Your task to perform on an android device: snooze an email in the gmail app Image 0: 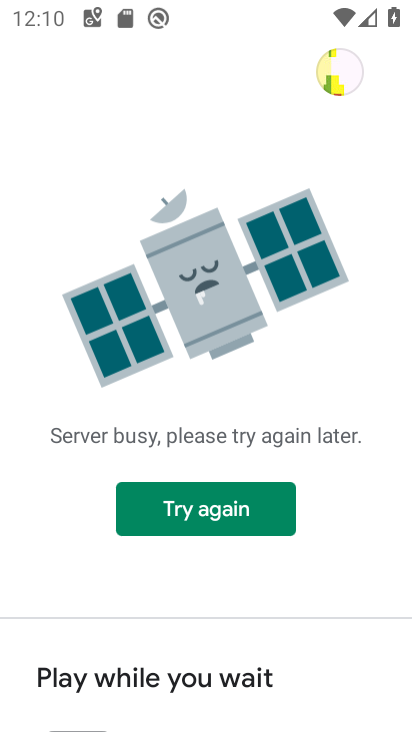
Step 0: press home button
Your task to perform on an android device: snooze an email in the gmail app Image 1: 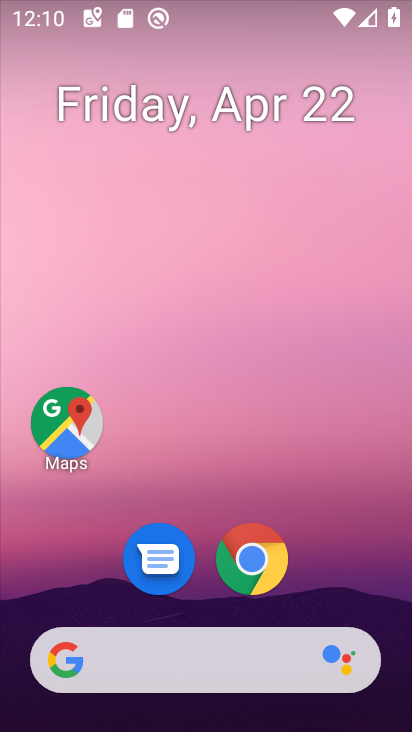
Step 1: click (258, 559)
Your task to perform on an android device: snooze an email in the gmail app Image 2: 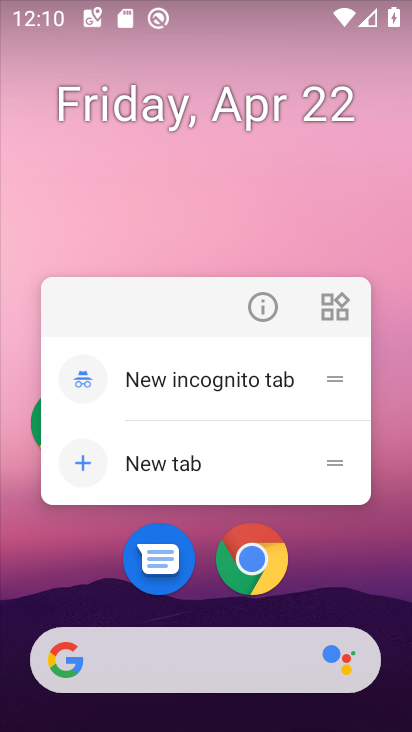
Step 2: click (243, 583)
Your task to perform on an android device: snooze an email in the gmail app Image 3: 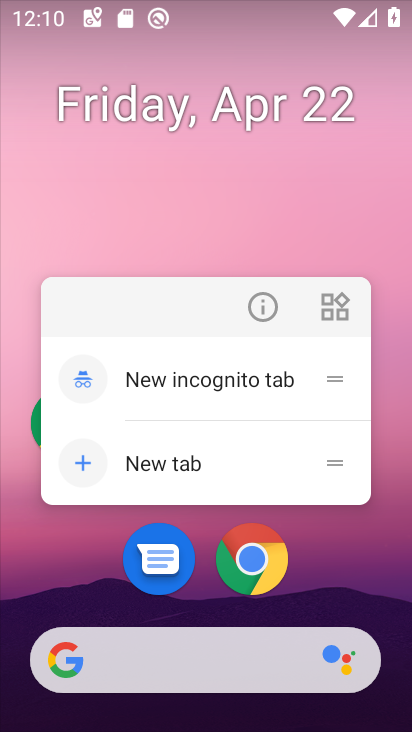
Step 3: click (251, 571)
Your task to perform on an android device: snooze an email in the gmail app Image 4: 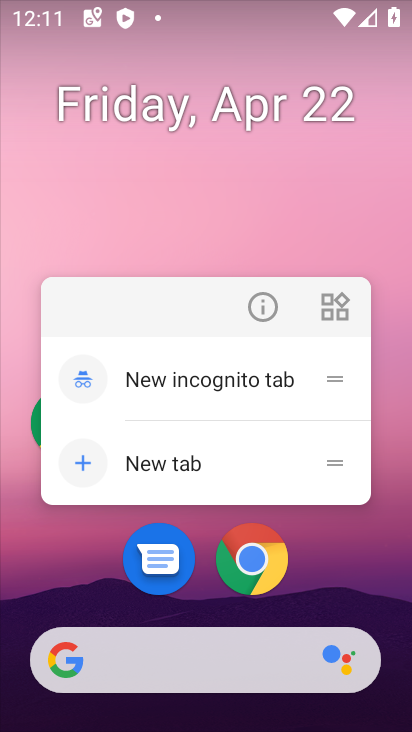
Step 4: click (246, 569)
Your task to perform on an android device: snooze an email in the gmail app Image 5: 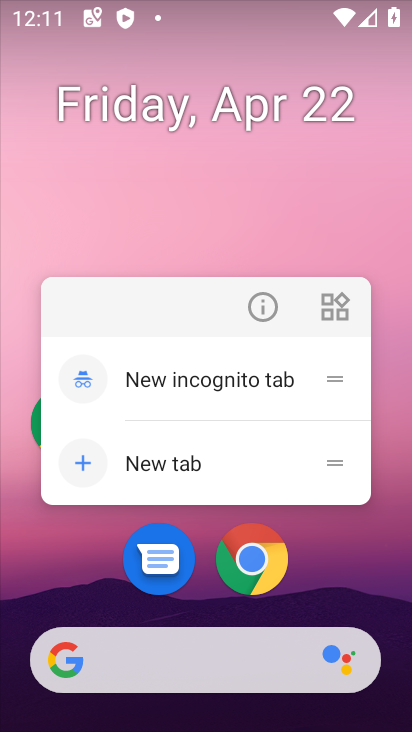
Step 5: click (248, 555)
Your task to perform on an android device: snooze an email in the gmail app Image 6: 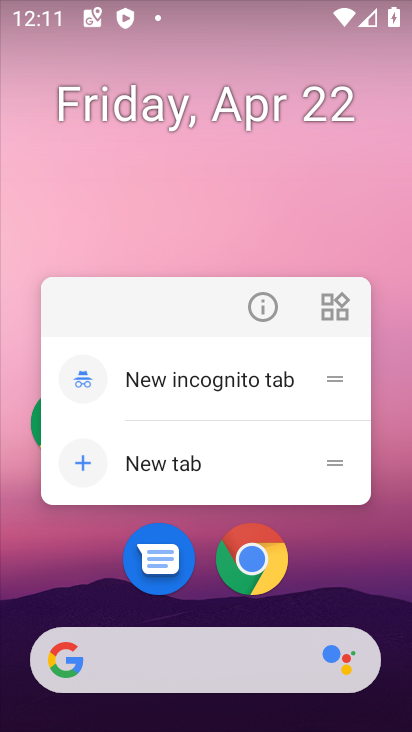
Step 6: click (248, 555)
Your task to perform on an android device: snooze an email in the gmail app Image 7: 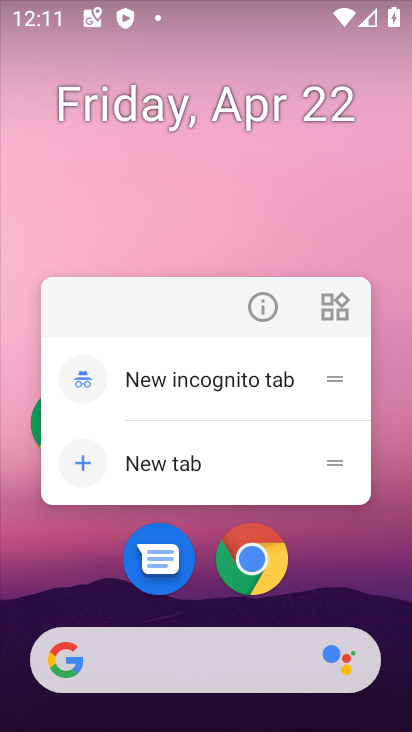
Step 7: click (258, 562)
Your task to perform on an android device: snooze an email in the gmail app Image 8: 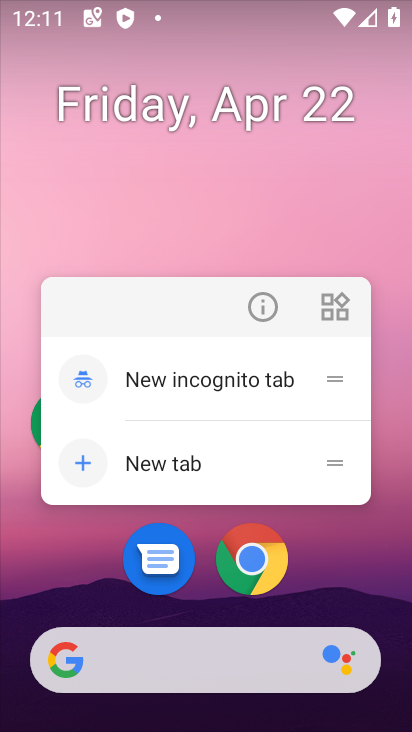
Step 8: click (258, 562)
Your task to perform on an android device: snooze an email in the gmail app Image 9: 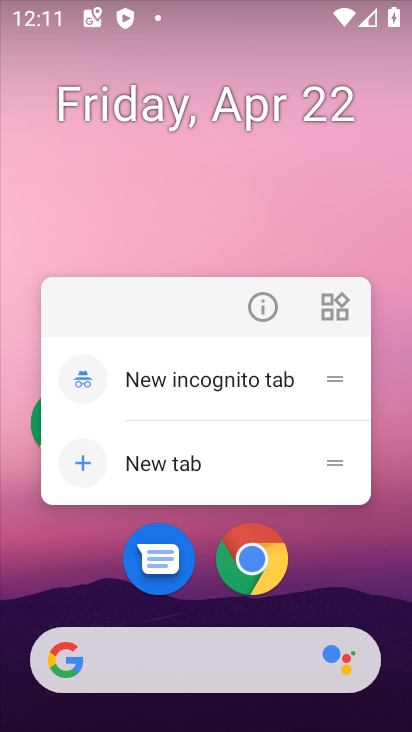
Step 9: click (258, 562)
Your task to perform on an android device: snooze an email in the gmail app Image 10: 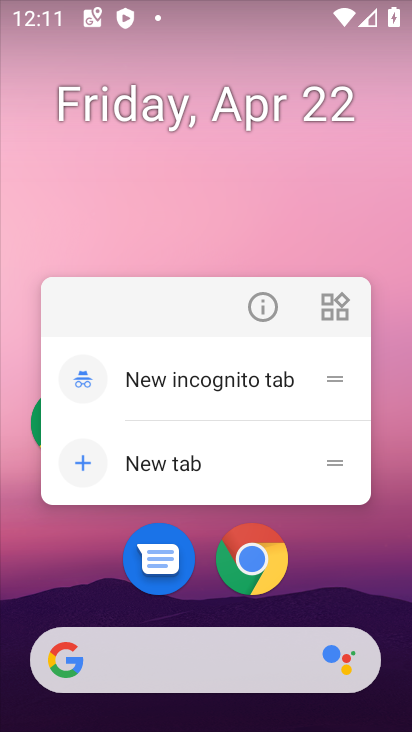
Step 10: click (247, 572)
Your task to perform on an android device: snooze an email in the gmail app Image 11: 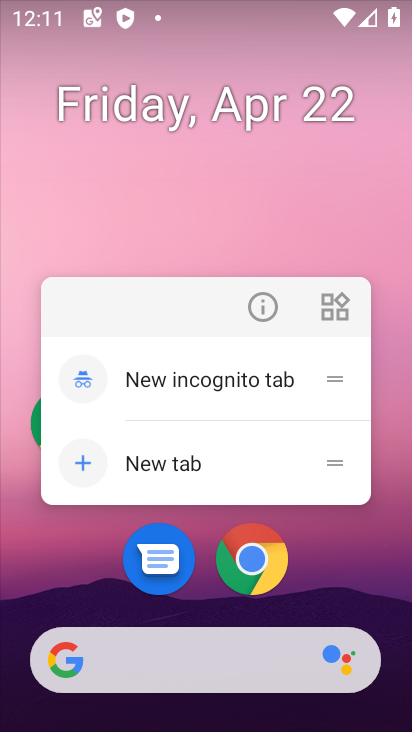
Step 11: click (247, 572)
Your task to perform on an android device: snooze an email in the gmail app Image 12: 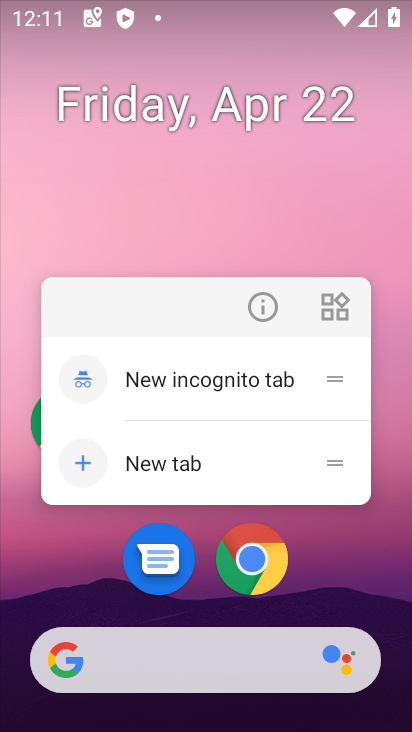
Step 12: click (261, 558)
Your task to perform on an android device: snooze an email in the gmail app Image 13: 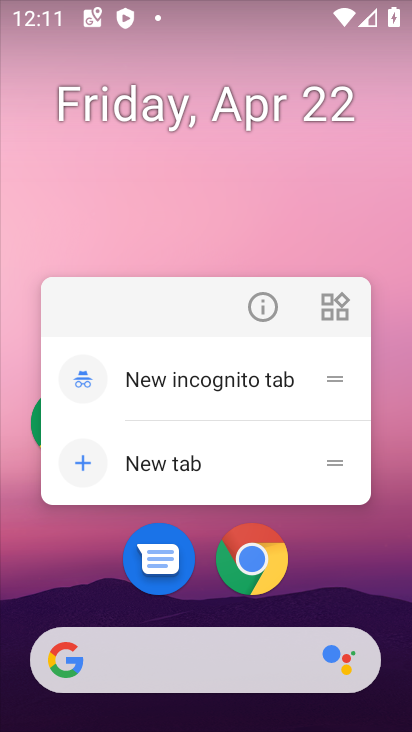
Step 13: click (249, 546)
Your task to perform on an android device: snooze an email in the gmail app Image 14: 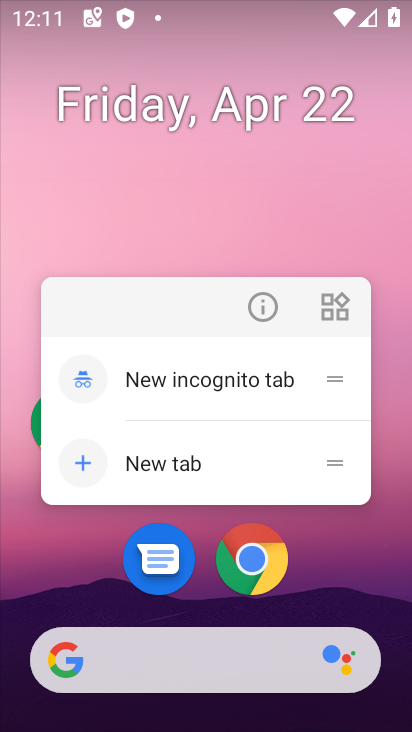
Step 14: click (249, 546)
Your task to perform on an android device: snooze an email in the gmail app Image 15: 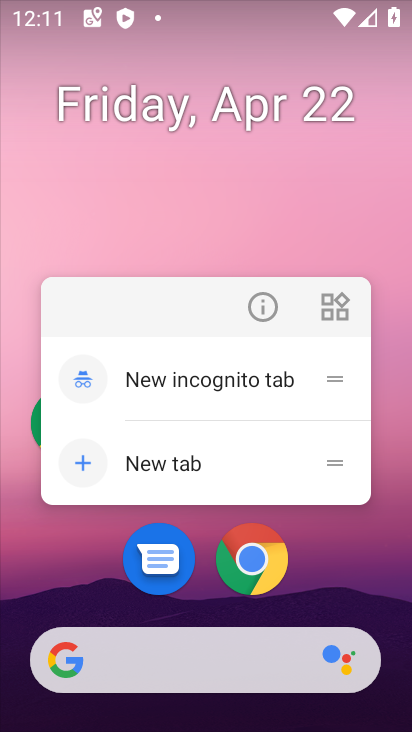
Step 15: click (249, 546)
Your task to perform on an android device: snooze an email in the gmail app Image 16: 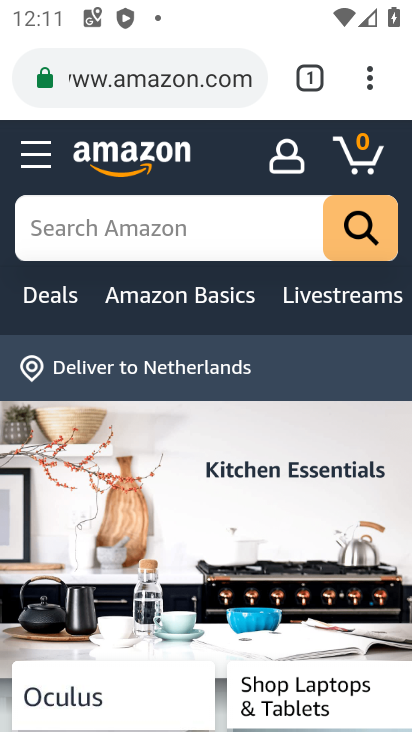
Step 16: press home button
Your task to perform on an android device: snooze an email in the gmail app Image 17: 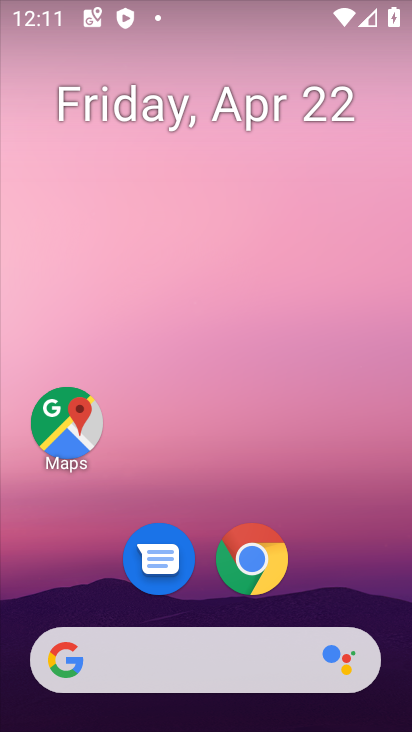
Step 17: drag from (317, 574) to (277, 168)
Your task to perform on an android device: snooze an email in the gmail app Image 18: 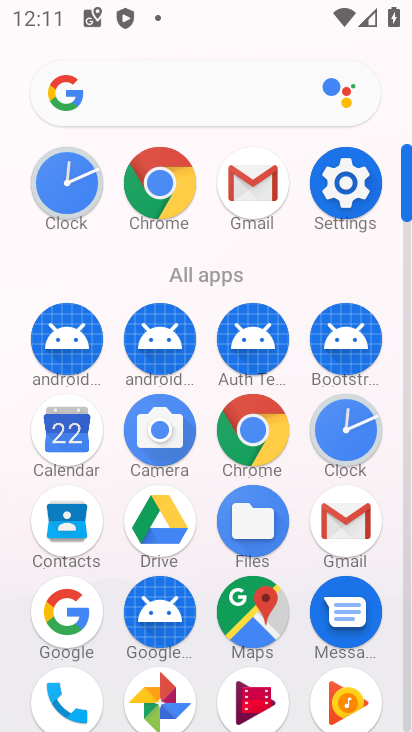
Step 18: click (256, 197)
Your task to perform on an android device: snooze an email in the gmail app Image 19: 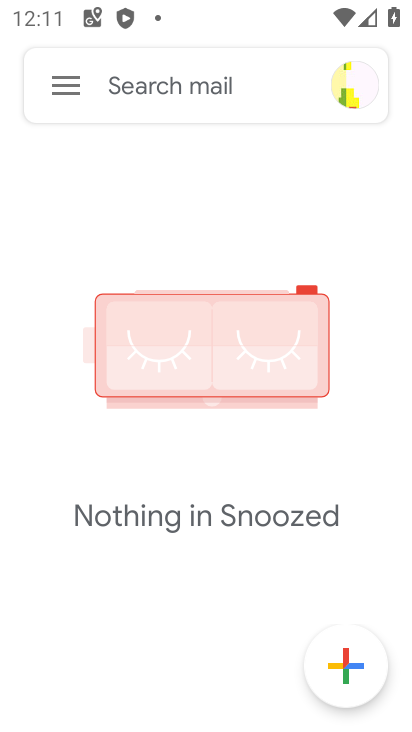
Step 19: click (65, 83)
Your task to perform on an android device: snooze an email in the gmail app Image 20: 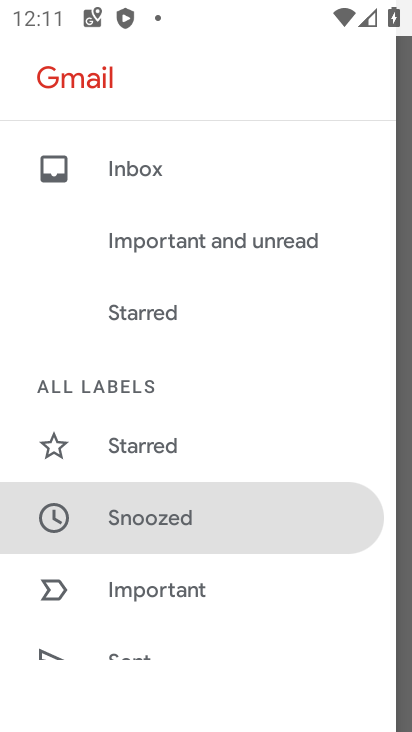
Step 20: drag from (178, 586) to (191, 333)
Your task to perform on an android device: snooze an email in the gmail app Image 21: 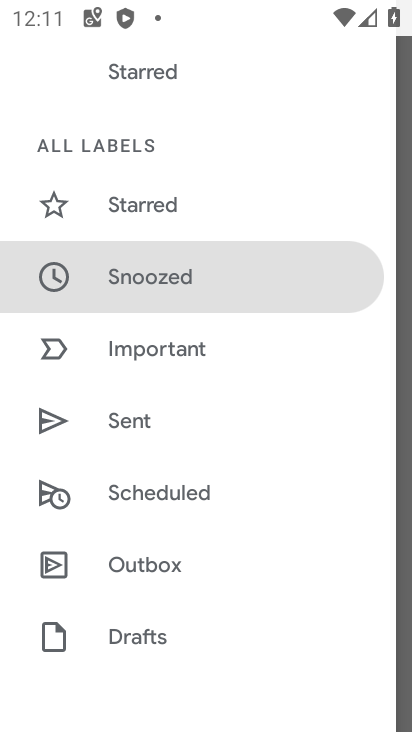
Step 21: drag from (181, 589) to (222, 318)
Your task to perform on an android device: snooze an email in the gmail app Image 22: 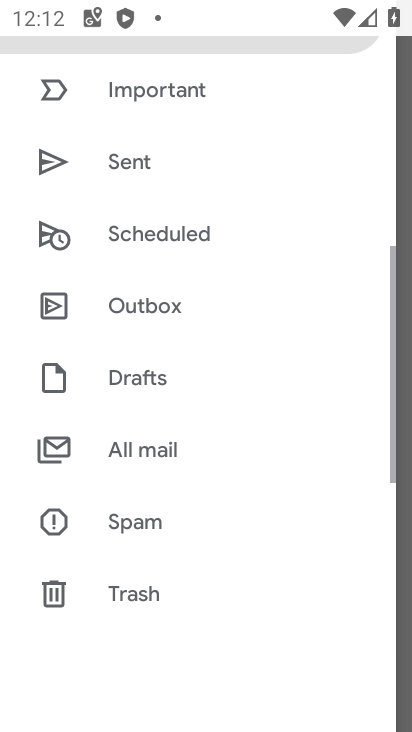
Step 22: click (166, 466)
Your task to perform on an android device: snooze an email in the gmail app Image 23: 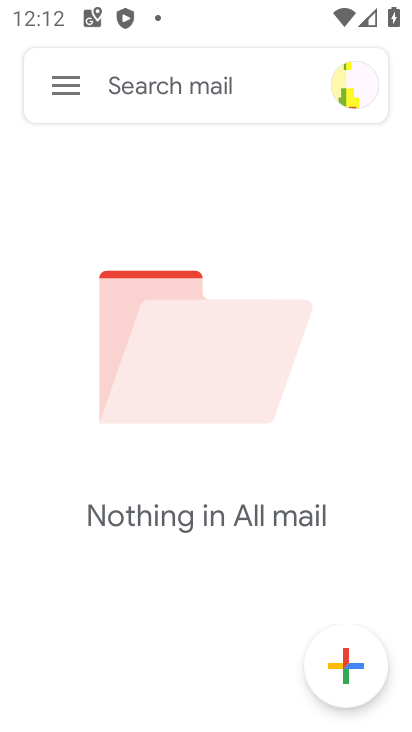
Step 23: task complete